Your task to perform on an android device: Play the last video I watched on Youtube Image 0: 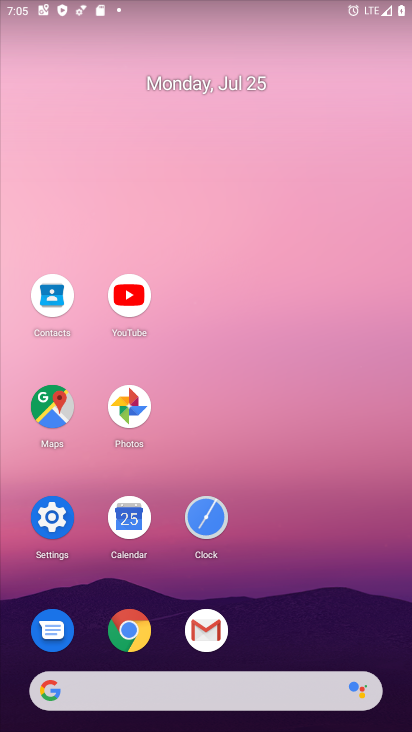
Step 0: click (120, 291)
Your task to perform on an android device: Play the last video I watched on Youtube Image 1: 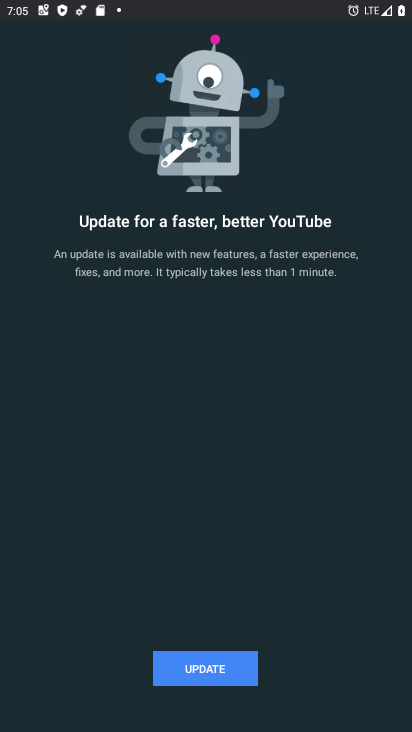
Step 1: click (204, 672)
Your task to perform on an android device: Play the last video I watched on Youtube Image 2: 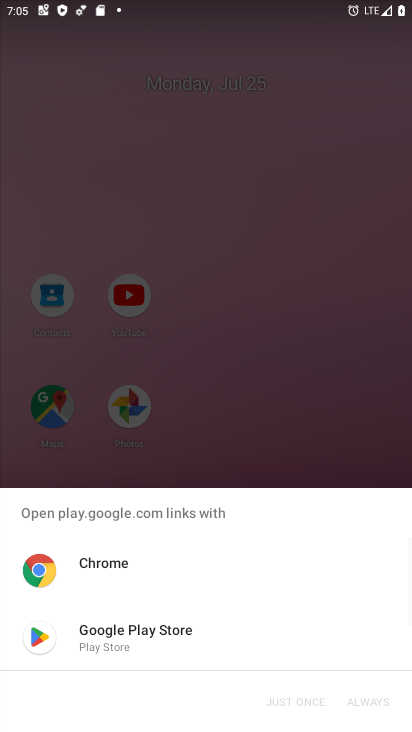
Step 2: click (117, 627)
Your task to perform on an android device: Play the last video I watched on Youtube Image 3: 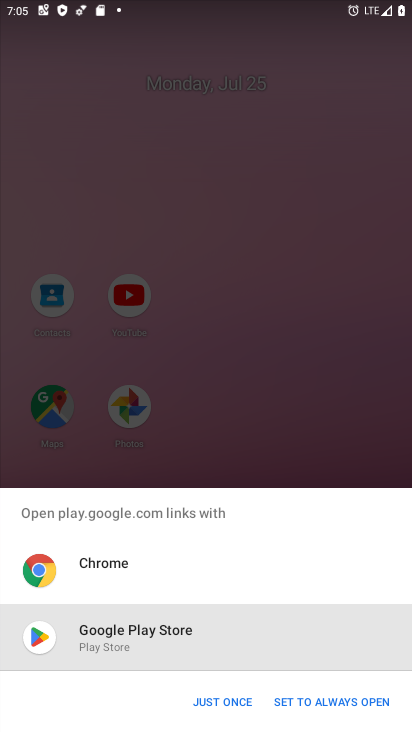
Step 3: click (218, 707)
Your task to perform on an android device: Play the last video I watched on Youtube Image 4: 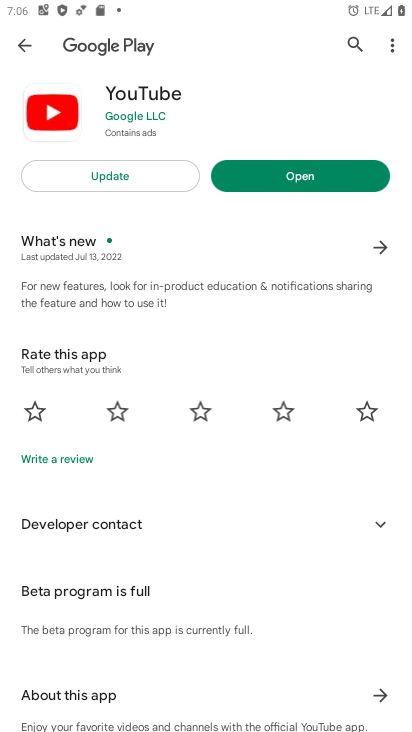
Step 4: click (137, 173)
Your task to perform on an android device: Play the last video I watched on Youtube Image 5: 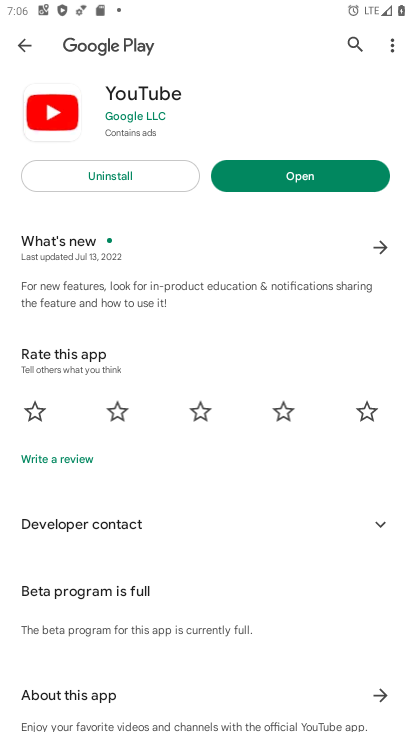
Step 5: click (273, 169)
Your task to perform on an android device: Play the last video I watched on Youtube Image 6: 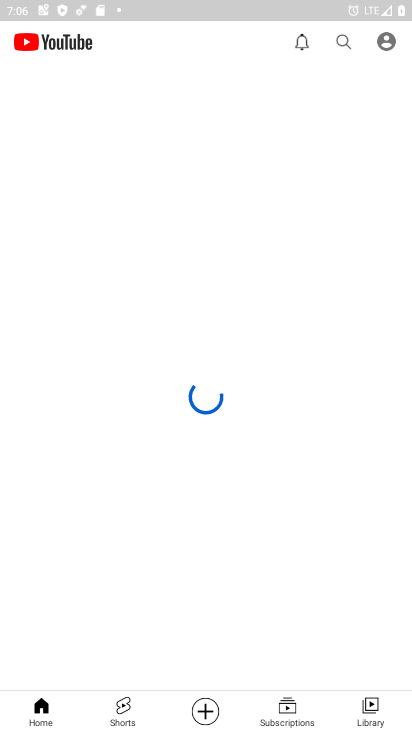
Step 6: click (363, 707)
Your task to perform on an android device: Play the last video I watched on Youtube Image 7: 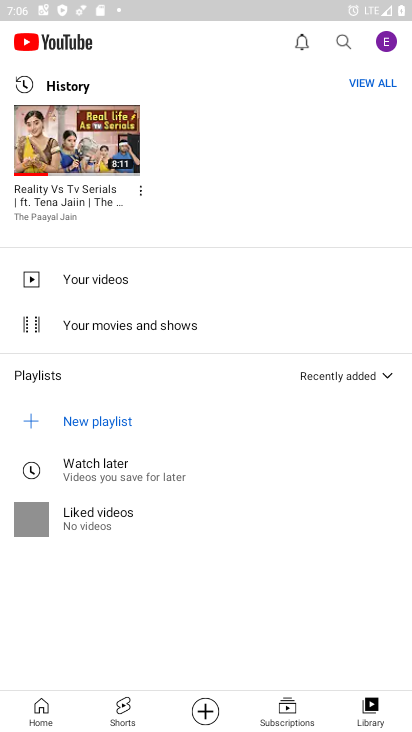
Step 7: click (76, 159)
Your task to perform on an android device: Play the last video I watched on Youtube Image 8: 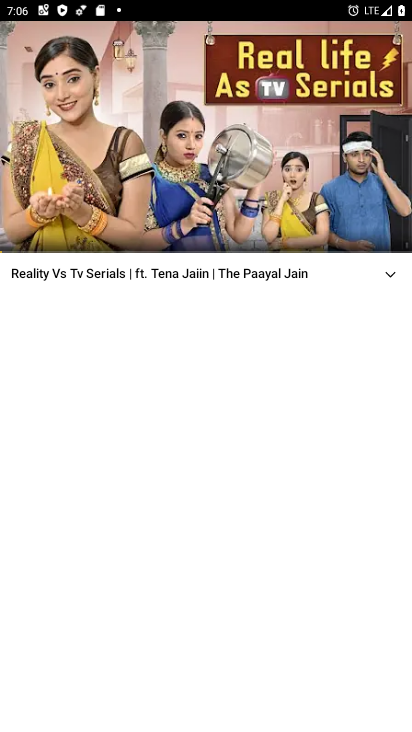
Step 8: task complete